Your task to perform on an android device: refresh tabs in the chrome app Image 0: 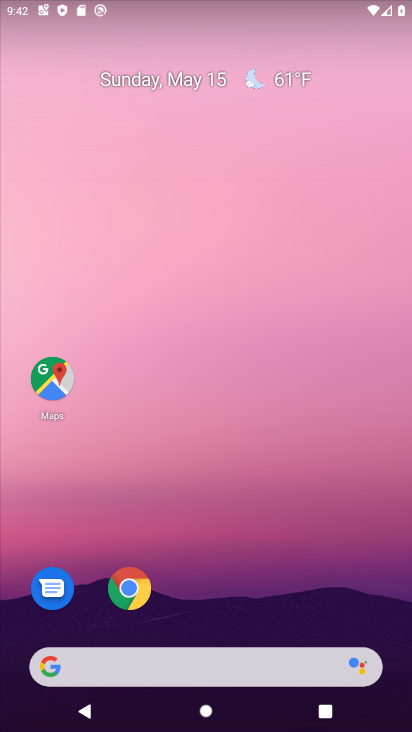
Step 0: click (131, 590)
Your task to perform on an android device: refresh tabs in the chrome app Image 1: 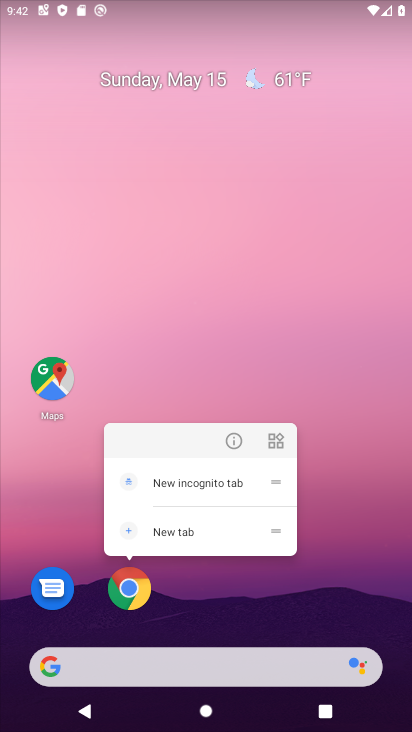
Step 1: click (131, 591)
Your task to perform on an android device: refresh tabs in the chrome app Image 2: 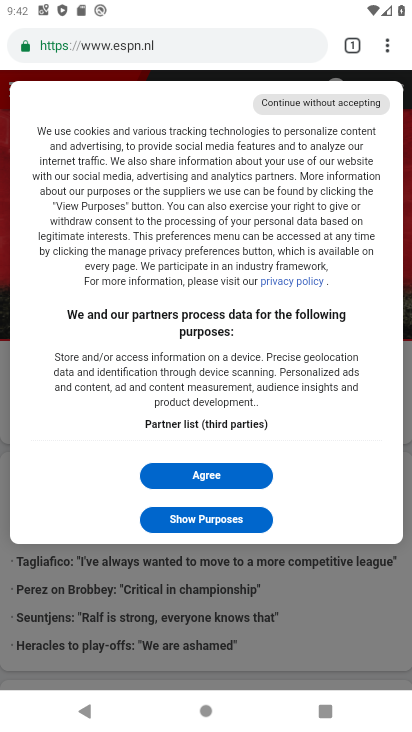
Step 2: click (388, 41)
Your task to perform on an android device: refresh tabs in the chrome app Image 3: 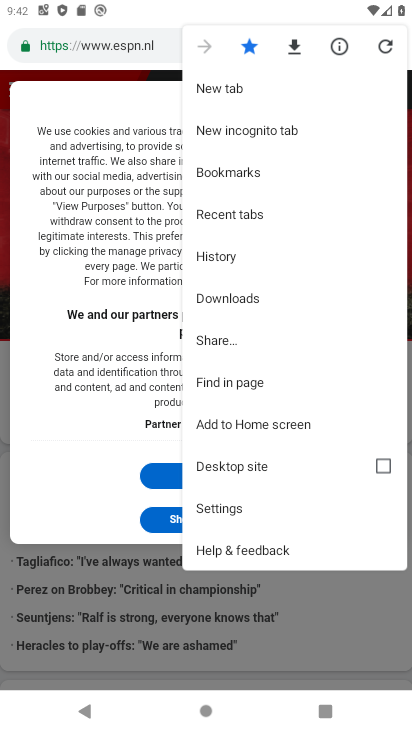
Step 3: click (389, 47)
Your task to perform on an android device: refresh tabs in the chrome app Image 4: 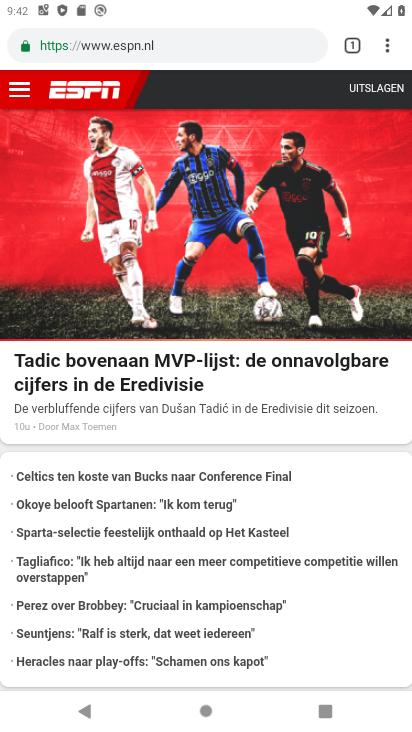
Step 4: task complete